Your task to perform on an android device: Add razer naga to the cart on target Image 0: 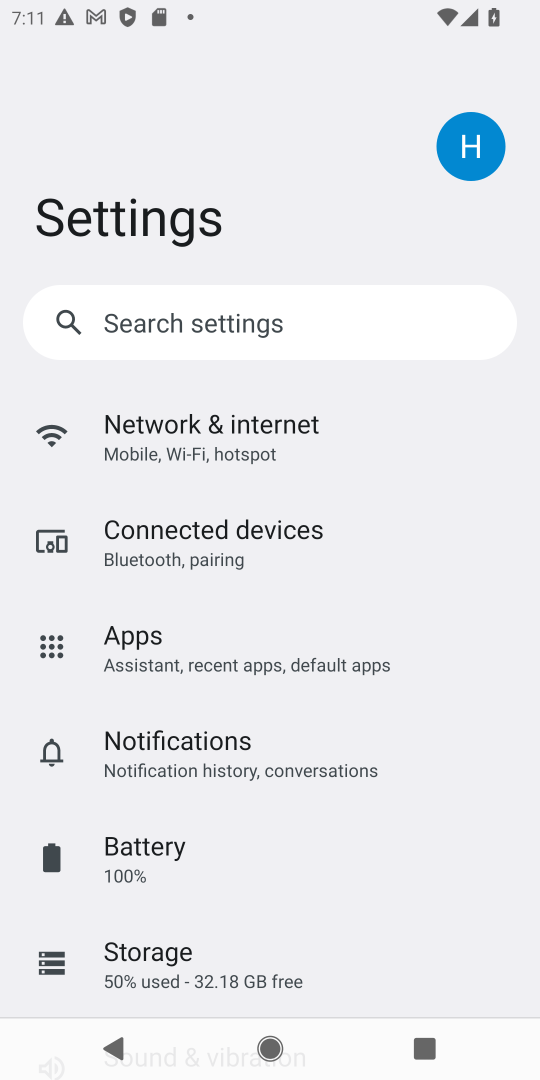
Step 0: press home button
Your task to perform on an android device: Add razer naga to the cart on target Image 1: 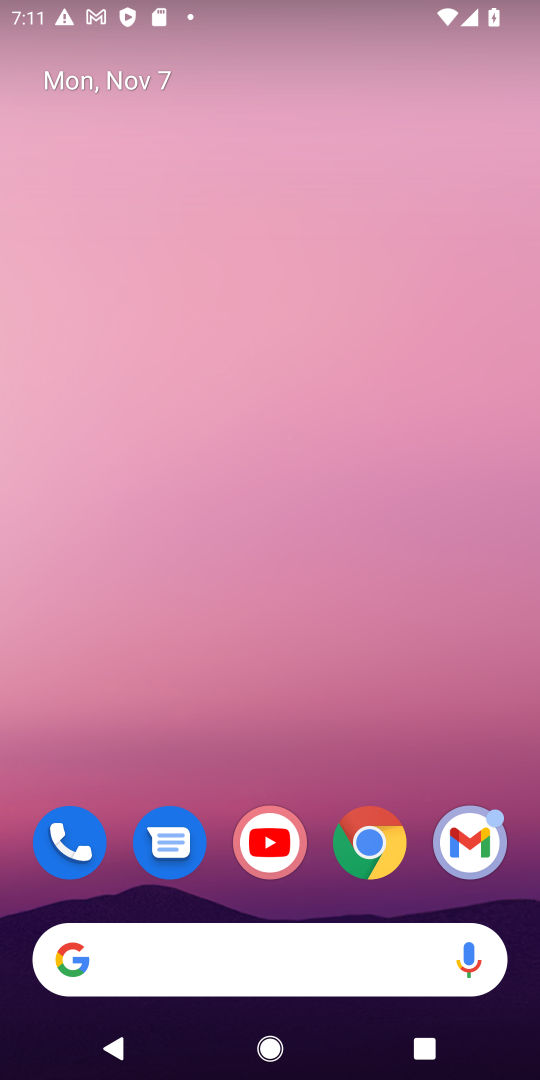
Step 1: drag from (213, 869) to (350, 31)
Your task to perform on an android device: Add razer naga to the cart on target Image 2: 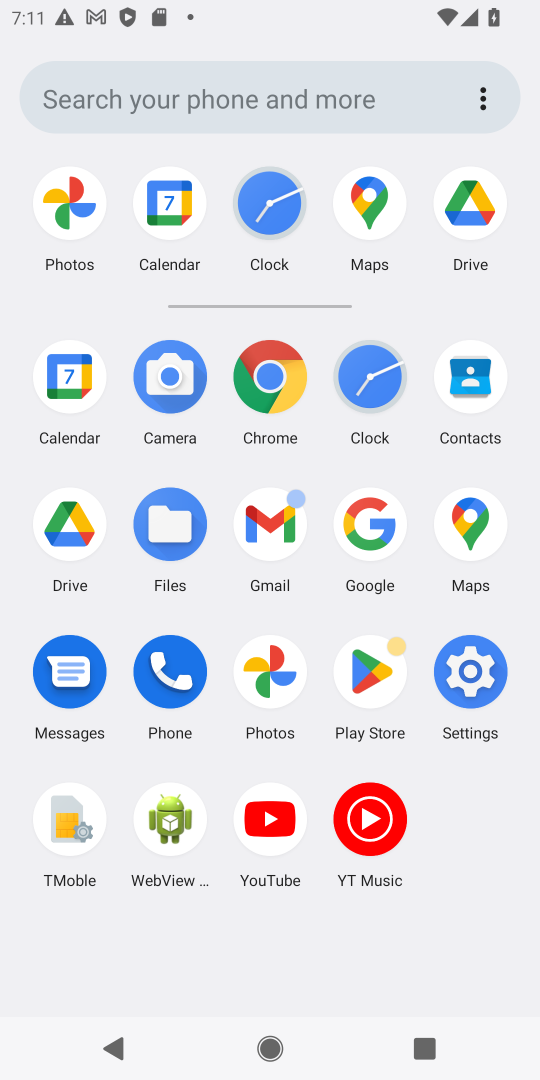
Step 2: click (275, 365)
Your task to perform on an android device: Add razer naga to the cart on target Image 3: 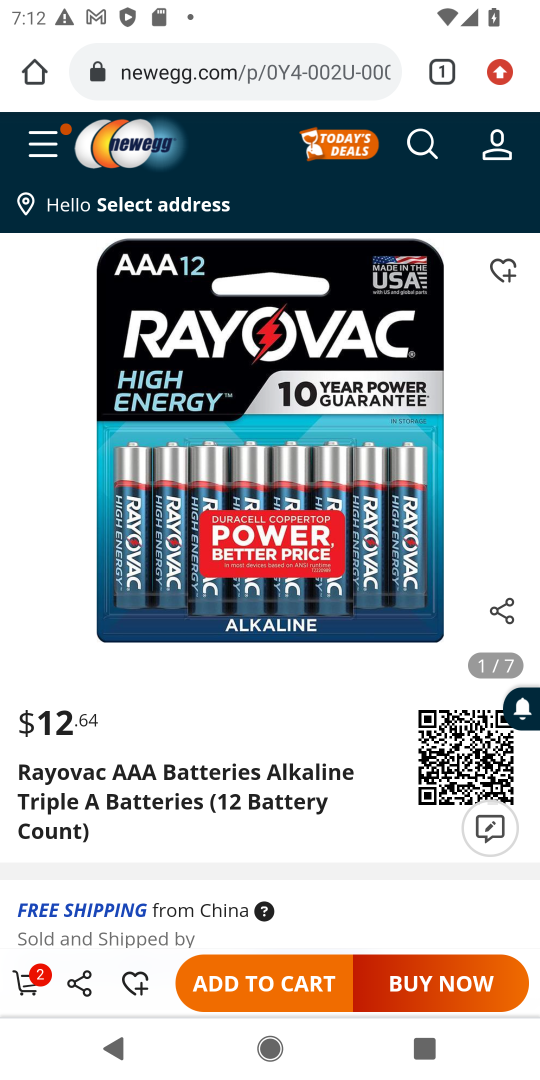
Step 3: click (237, 91)
Your task to perform on an android device: Add razer naga to the cart on target Image 4: 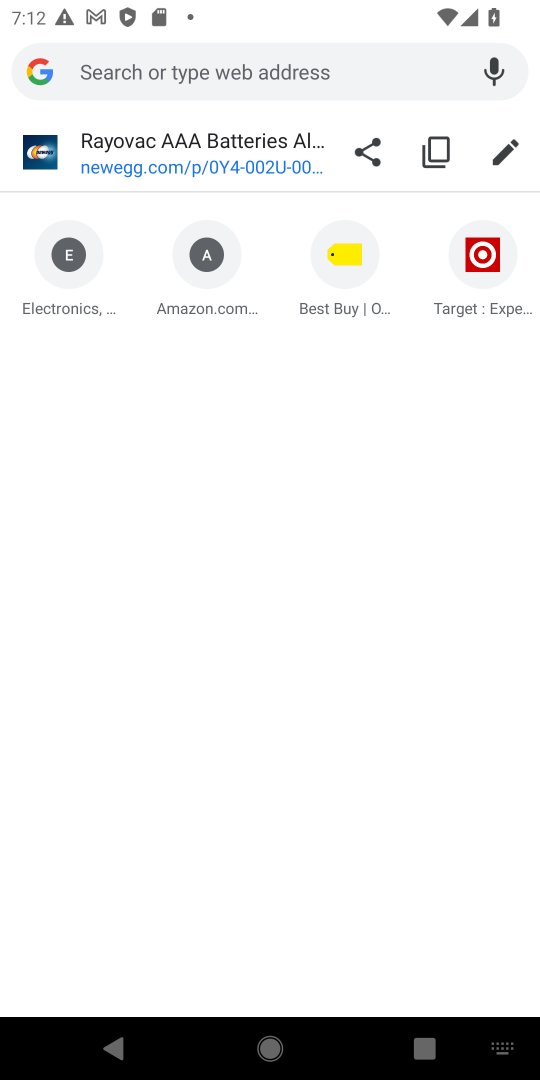
Step 4: type ""
Your task to perform on an android device: Add razer naga to the cart on target Image 5: 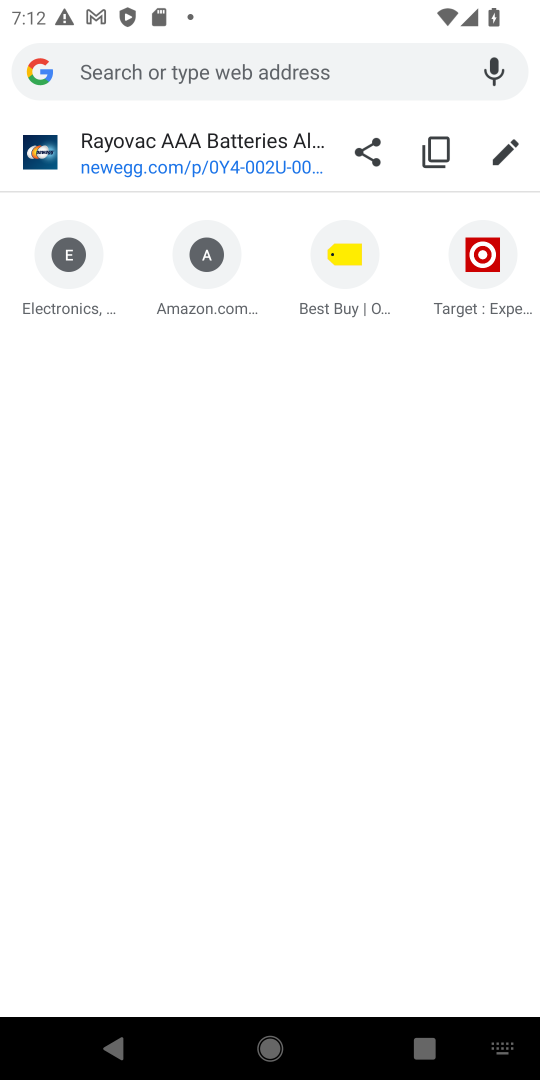
Step 5: type "target"
Your task to perform on an android device: Add razer naga to the cart on target Image 6: 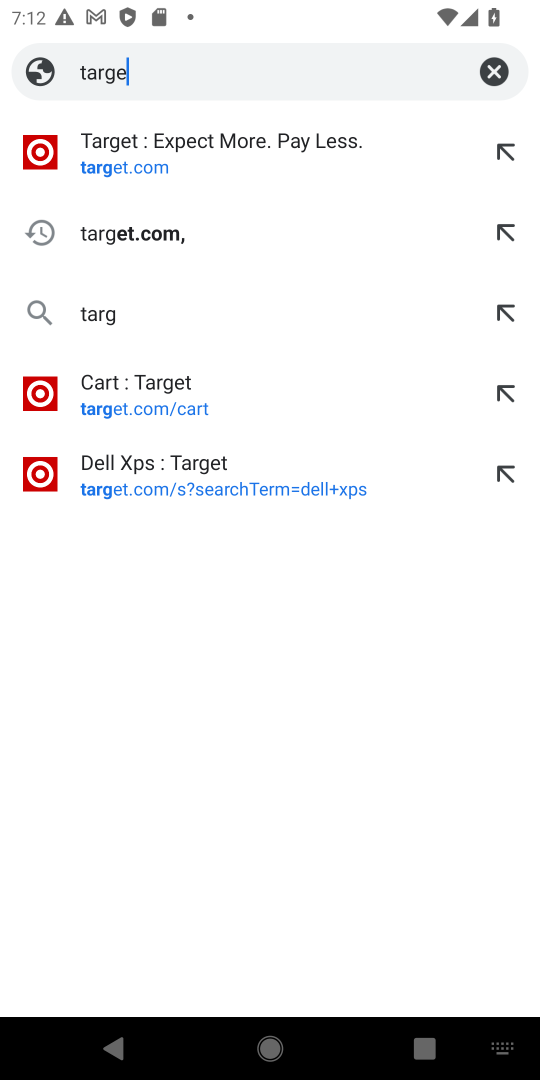
Step 6: press enter
Your task to perform on an android device: Add razer naga to the cart on target Image 7: 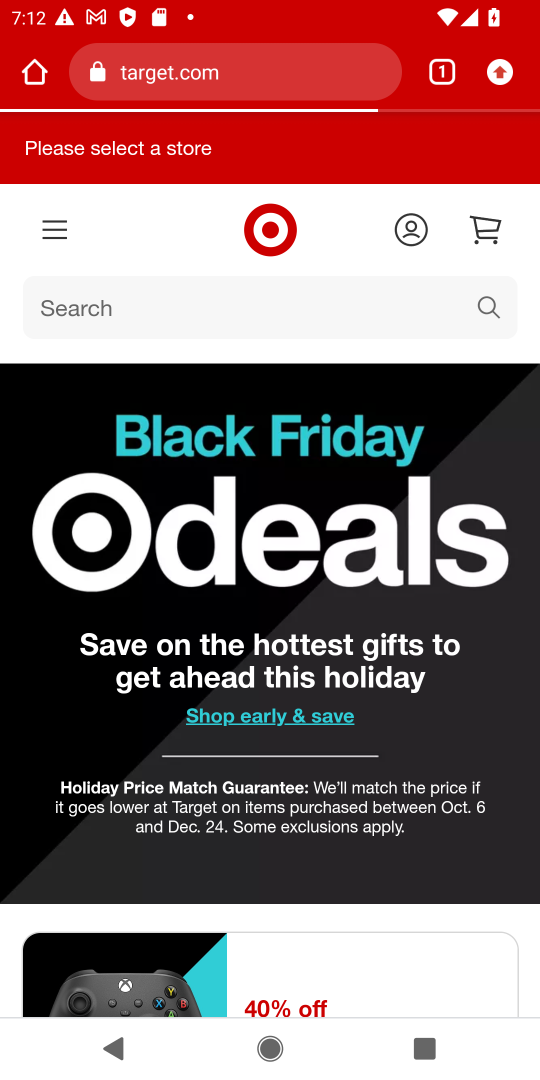
Step 7: click (227, 296)
Your task to perform on an android device: Add razer naga to the cart on target Image 8: 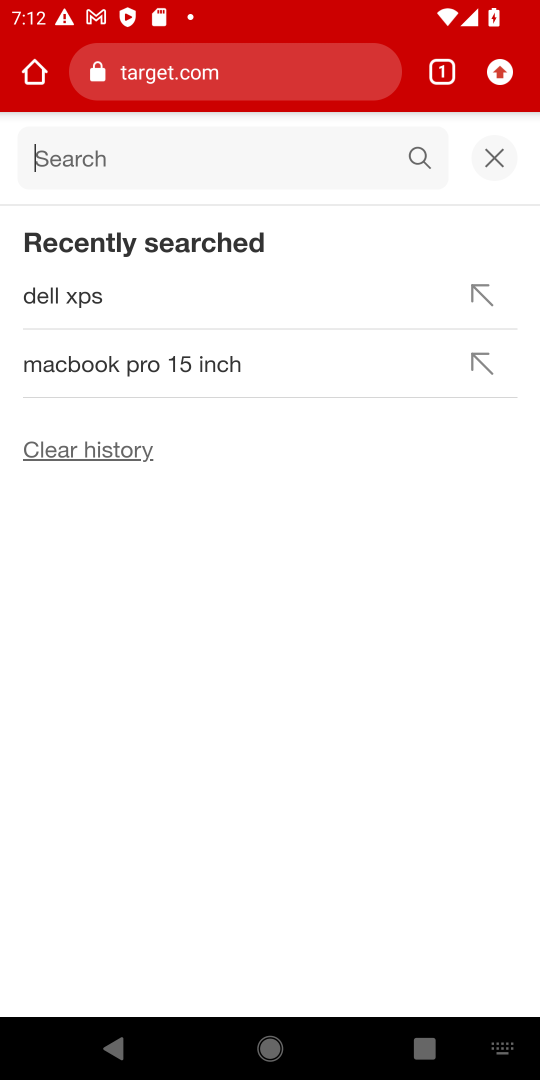
Step 8: type " razer naga"
Your task to perform on an android device: Add razer naga to the cart on target Image 9: 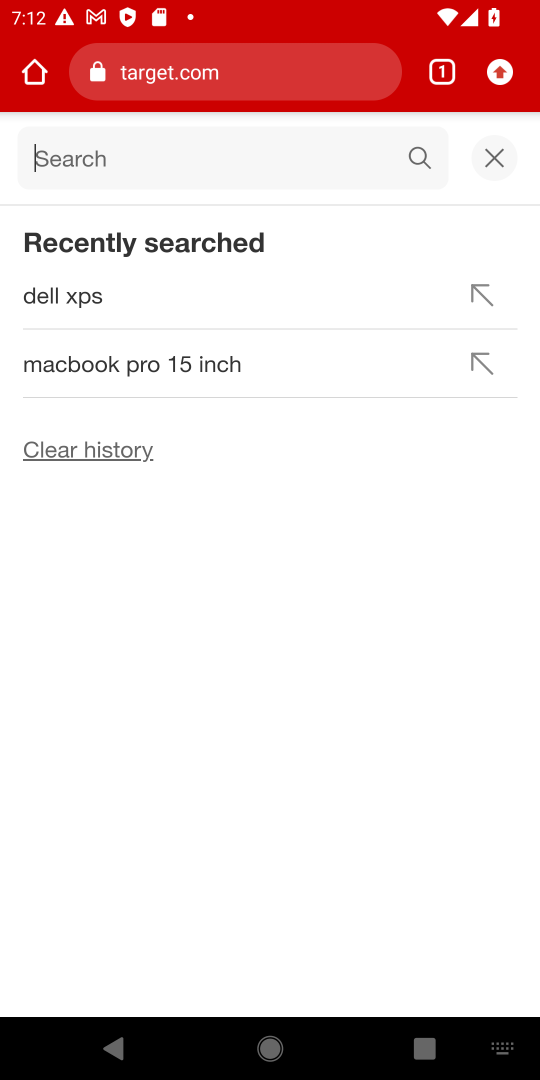
Step 9: press enter
Your task to perform on an android device: Add razer naga to the cart on target Image 10: 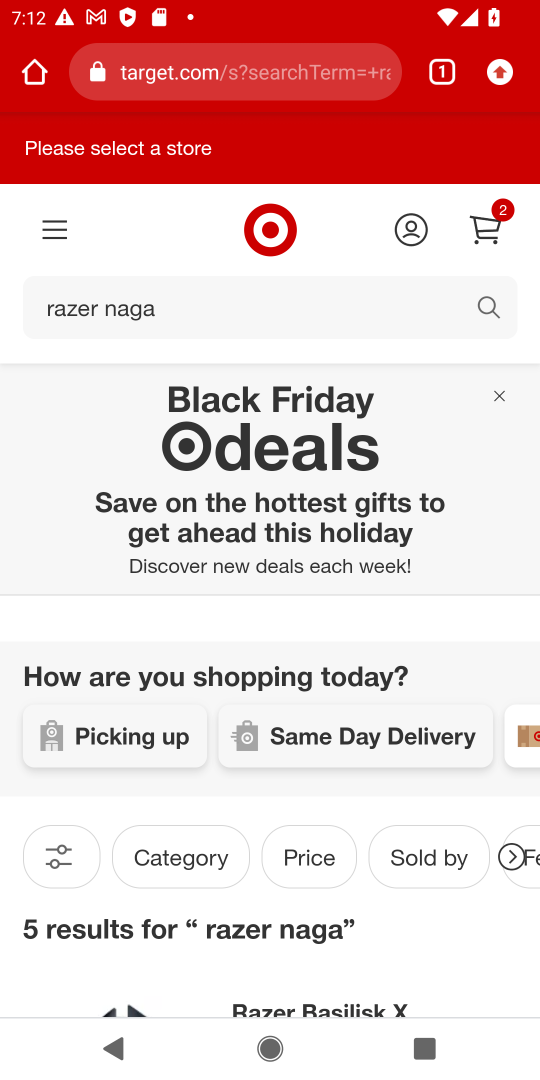
Step 10: drag from (351, 806) to (483, 257)
Your task to perform on an android device: Add razer naga to the cart on target Image 11: 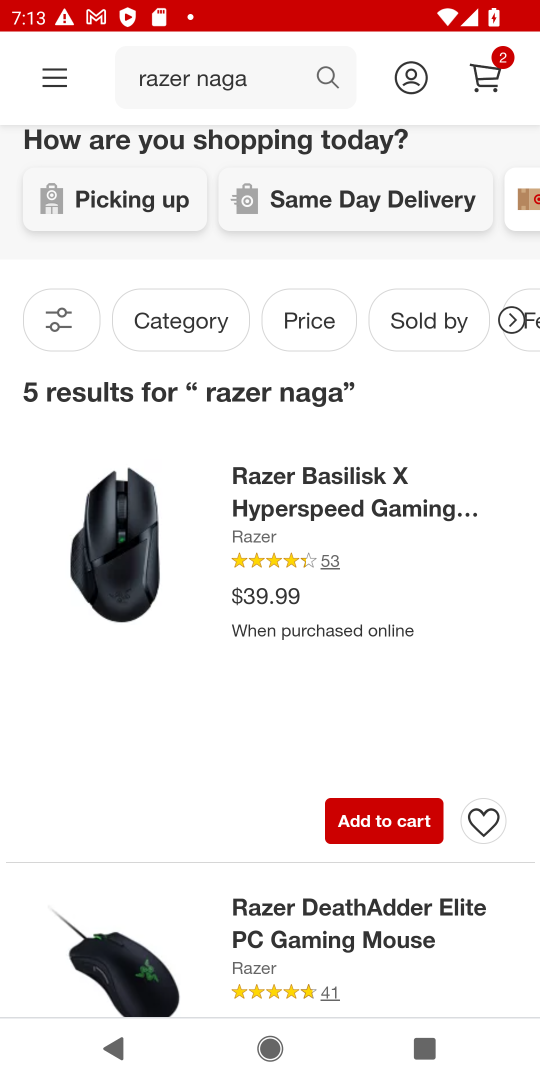
Step 11: click (382, 818)
Your task to perform on an android device: Add razer naga to the cart on target Image 12: 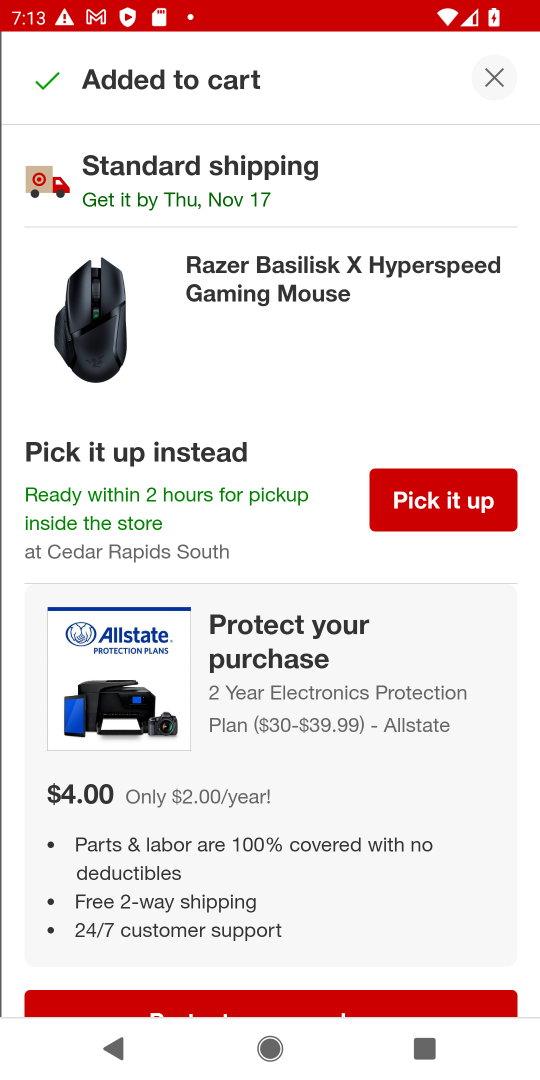
Step 12: task complete